Your task to perform on an android device: allow notifications from all sites in the chrome app Image 0: 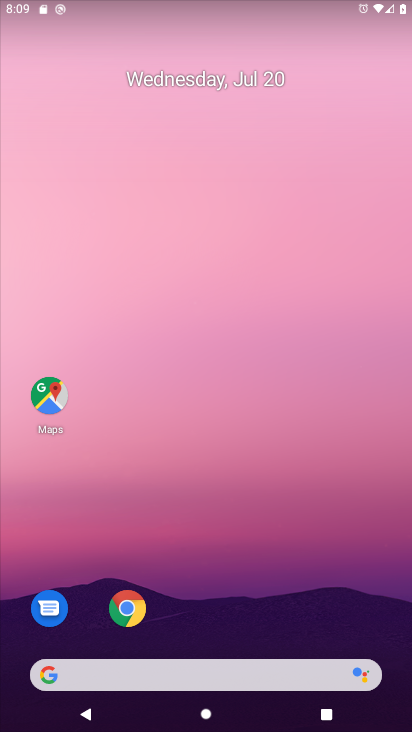
Step 0: drag from (152, 648) to (178, 174)
Your task to perform on an android device: allow notifications from all sites in the chrome app Image 1: 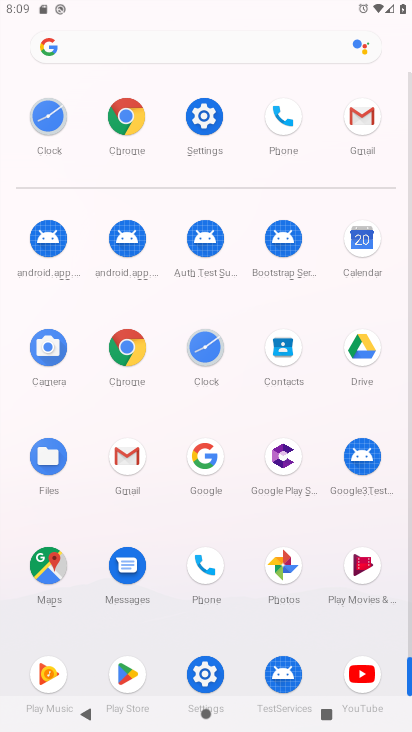
Step 1: click (115, 108)
Your task to perform on an android device: allow notifications from all sites in the chrome app Image 2: 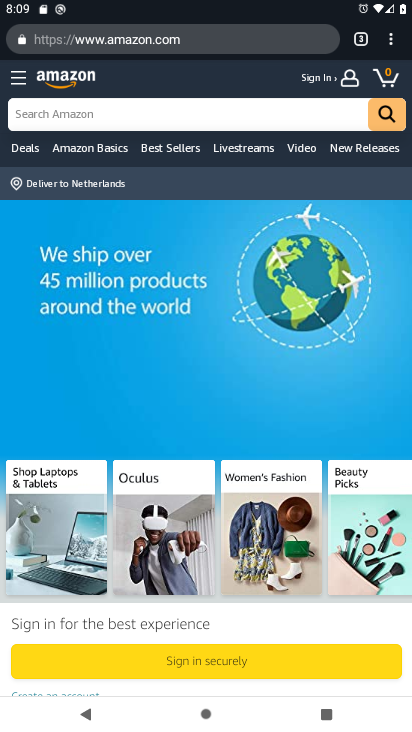
Step 2: click (391, 38)
Your task to perform on an android device: allow notifications from all sites in the chrome app Image 3: 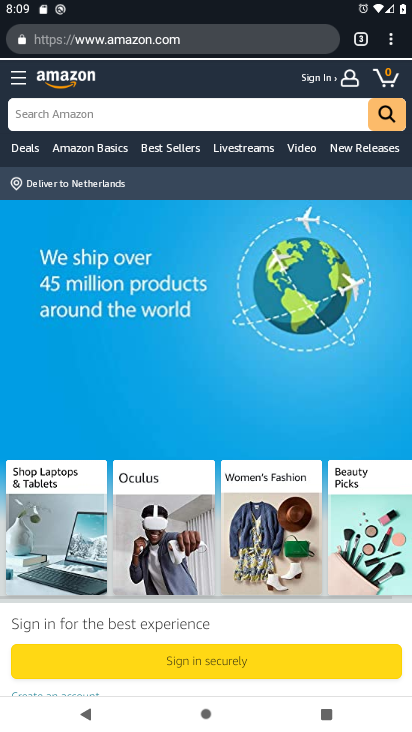
Step 3: click (400, 43)
Your task to perform on an android device: allow notifications from all sites in the chrome app Image 4: 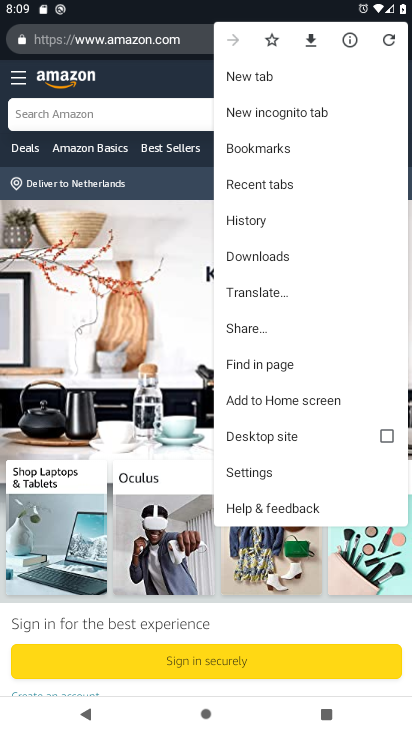
Step 4: click (259, 469)
Your task to perform on an android device: allow notifications from all sites in the chrome app Image 5: 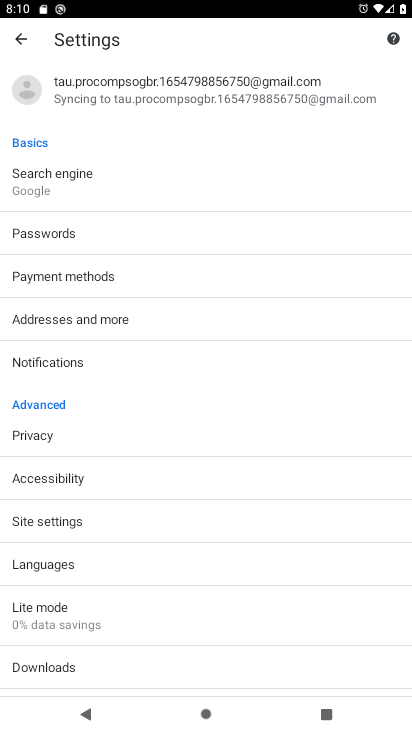
Step 5: click (75, 520)
Your task to perform on an android device: allow notifications from all sites in the chrome app Image 6: 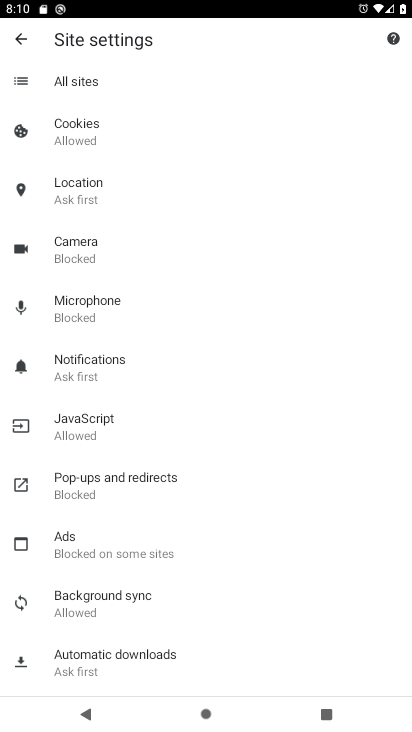
Step 6: click (107, 133)
Your task to perform on an android device: allow notifications from all sites in the chrome app Image 7: 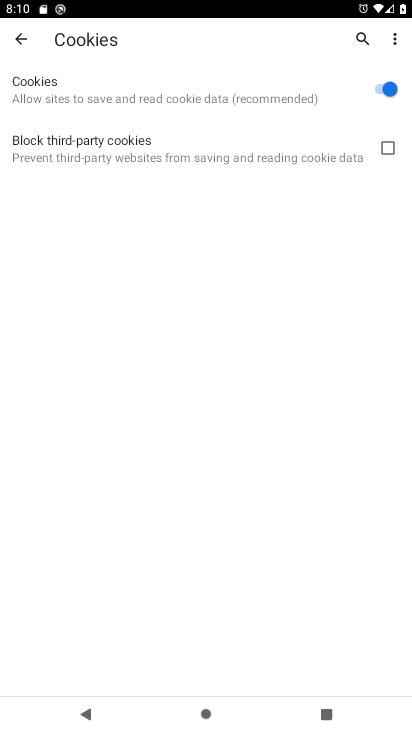
Step 7: click (9, 38)
Your task to perform on an android device: allow notifications from all sites in the chrome app Image 8: 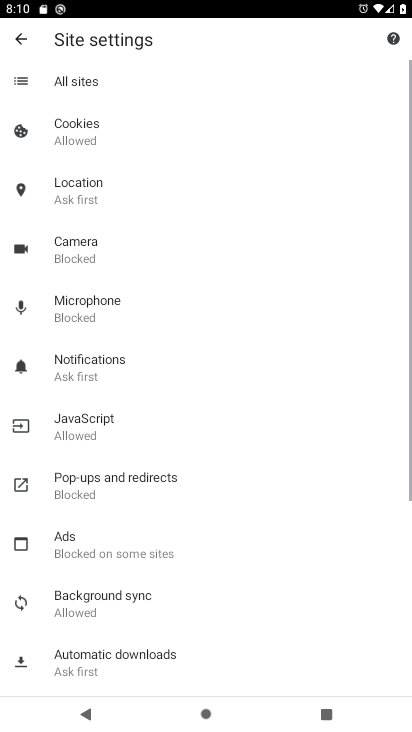
Step 8: click (97, 189)
Your task to perform on an android device: allow notifications from all sites in the chrome app Image 9: 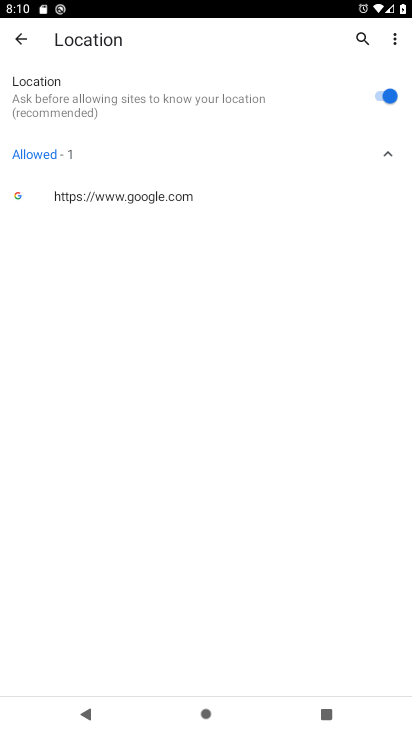
Step 9: click (29, 36)
Your task to perform on an android device: allow notifications from all sites in the chrome app Image 10: 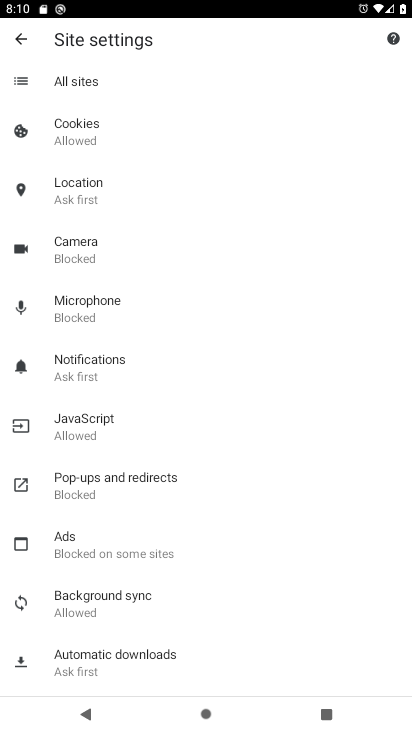
Step 10: click (109, 366)
Your task to perform on an android device: allow notifications from all sites in the chrome app Image 11: 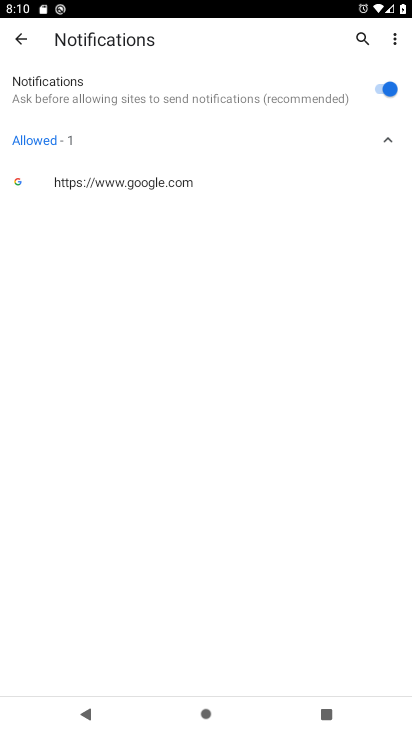
Step 11: click (22, 39)
Your task to perform on an android device: allow notifications from all sites in the chrome app Image 12: 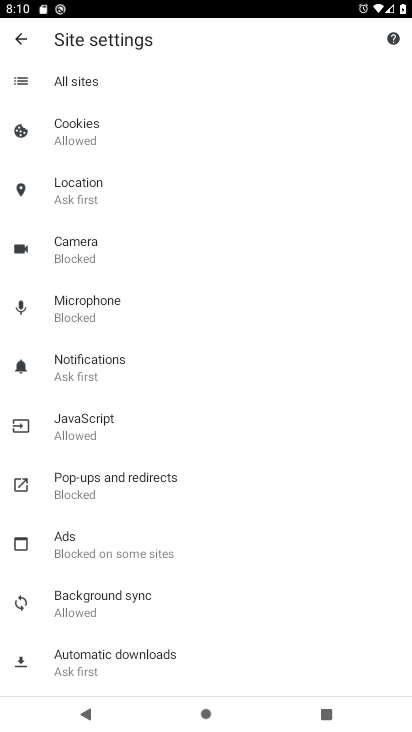
Step 12: click (134, 421)
Your task to perform on an android device: allow notifications from all sites in the chrome app Image 13: 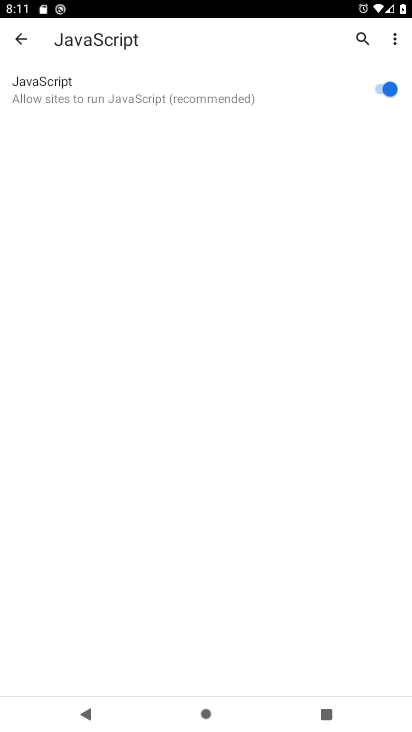
Step 13: click (18, 40)
Your task to perform on an android device: allow notifications from all sites in the chrome app Image 14: 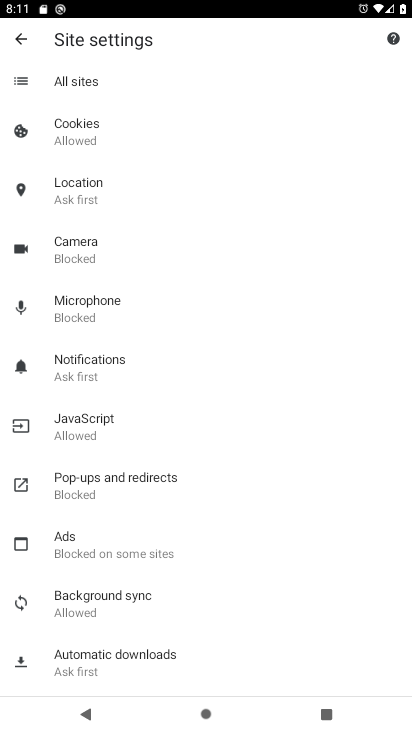
Step 14: task complete